Your task to perform on an android device: What's the weather today? Image 0: 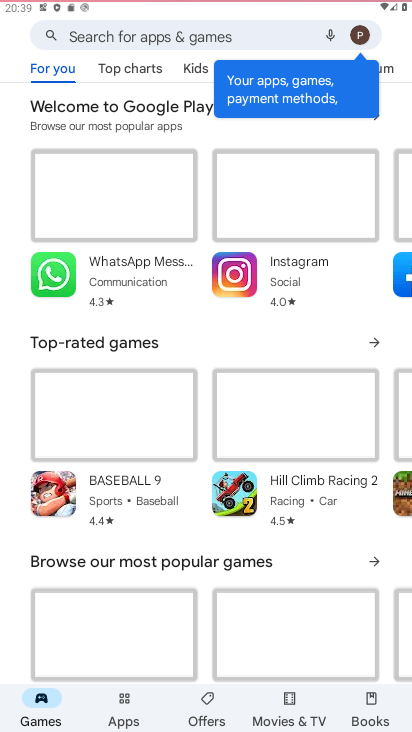
Step 0: click (225, 194)
Your task to perform on an android device: What's the weather today? Image 1: 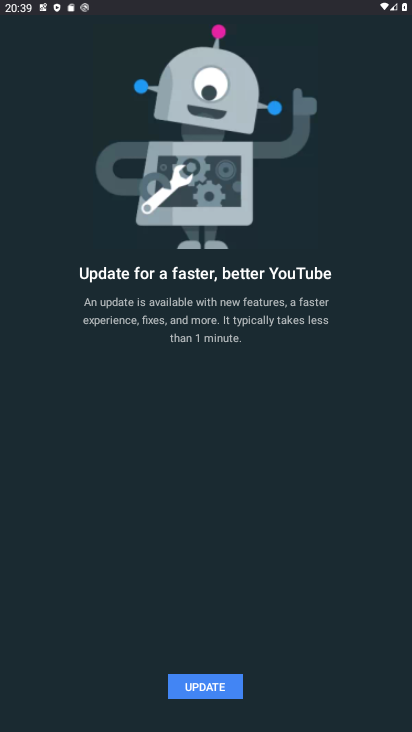
Step 1: press back button
Your task to perform on an android device: What's the weather today? Image 2: 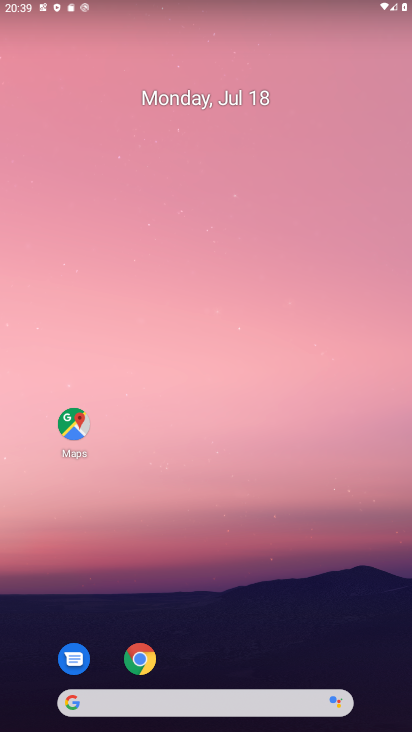
Step 2: drag from (260, 674) to (165, 276)
Your task to perform on an android device: What's the weather today? Image 3: 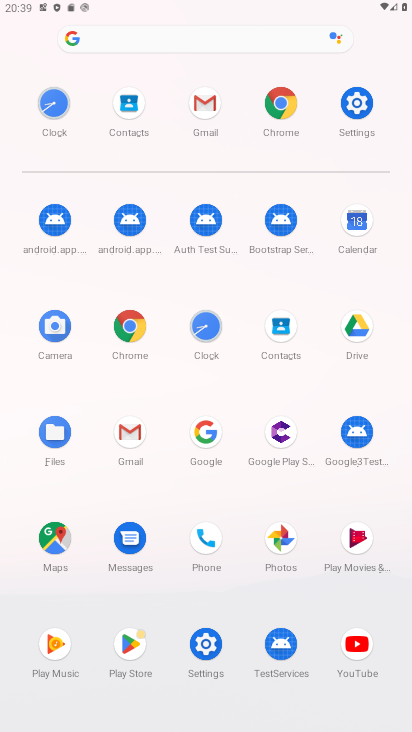
Step 3: click (120, 330)
Your task to perform on an android device: What's the weather today? Image 4: 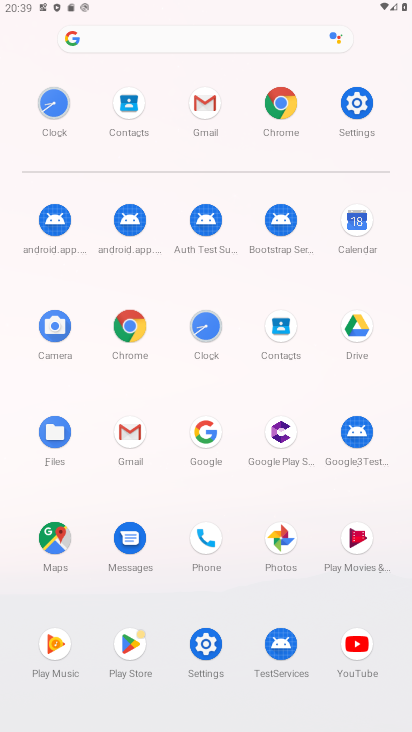
Step 4: click (120, 330)
Your task to perform on an android device: What's the weather today? Image 5: 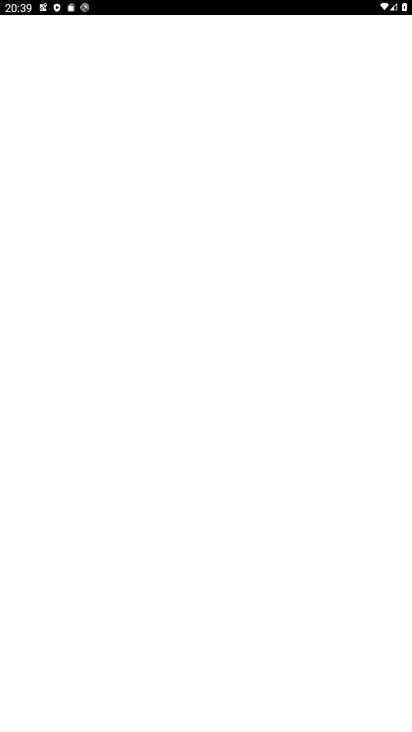
Step 5: click (130, 330)
Your task to perform on an android device: What's the weather today? Image 6: 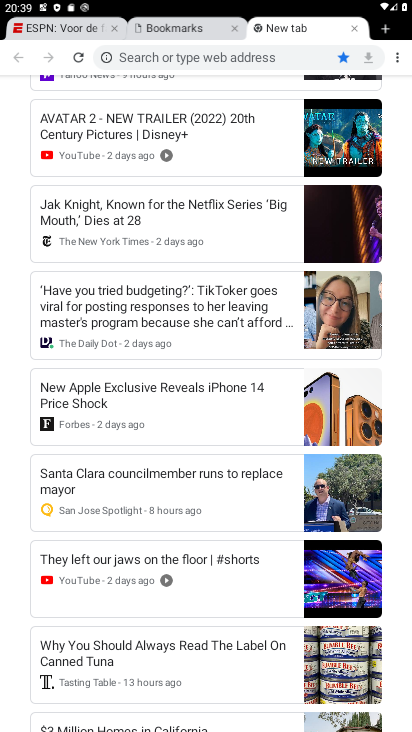
Step 6: drag from (399, 61) to (275, 49)
Your task to perform on an android device: What's the weather today? Image 7: 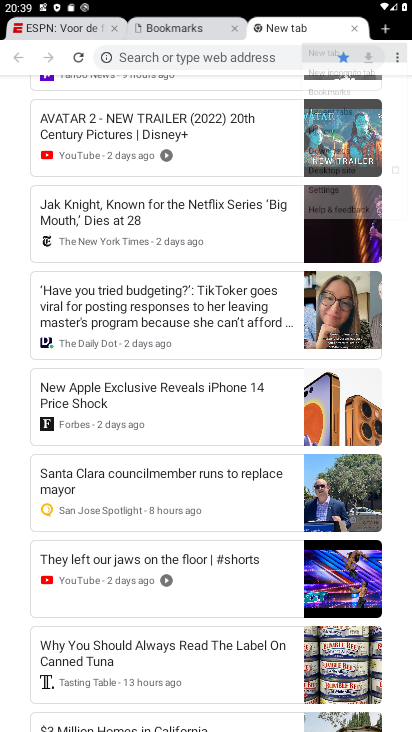
Step 7: click (275, 50)
Your task to perform on an android device: What's the weather today? Image 8: 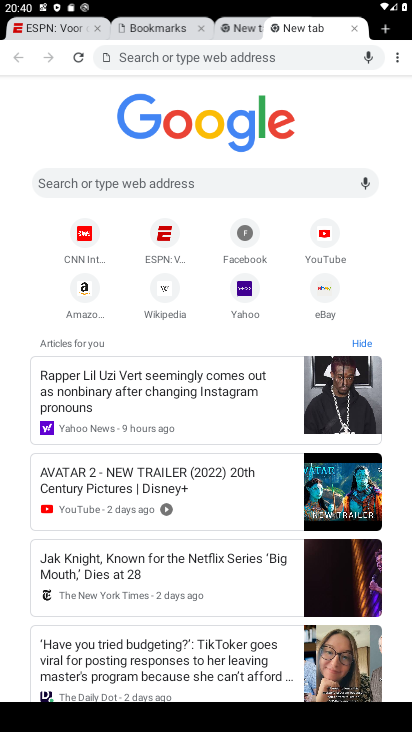
Step 8: type "weather today?"
Your task to perform on an android device: What's the weather today? Image 9: 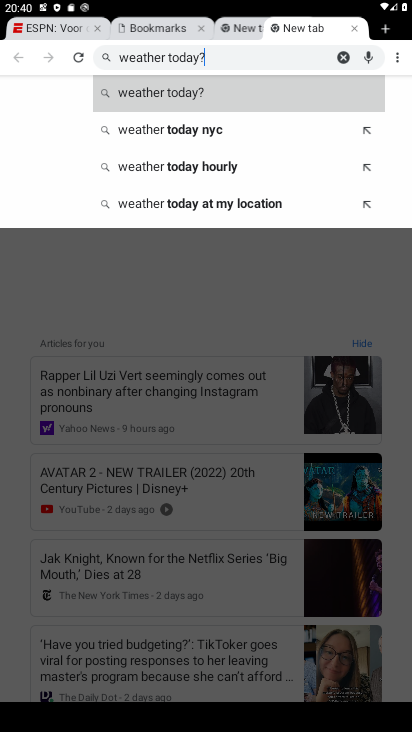
Step 9: click (226, 105)
Your task to perform on an android device: What's the weather today? Image 10: 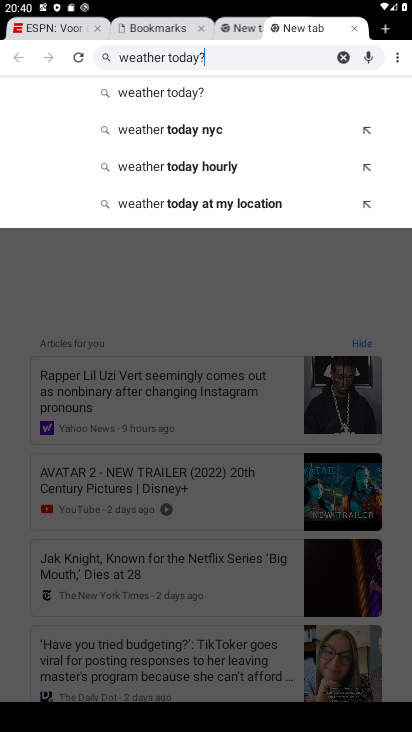
Step 10: task complete